Your task to perform on an android device: Open Chrome and go to settings Image 0: 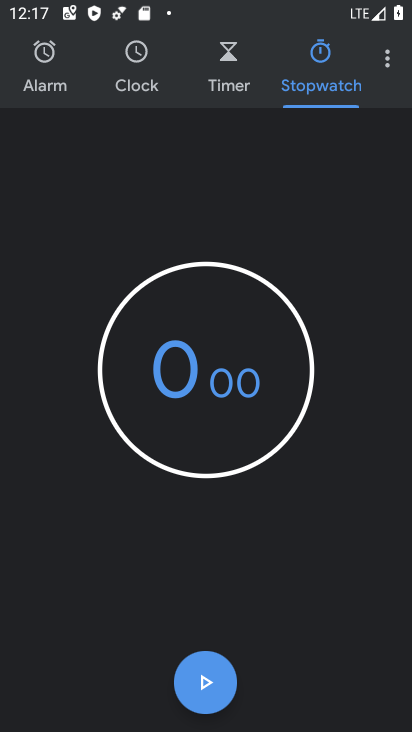
Step 0: press home button
Your task to perform on an android device: Open Chrome and go to settings Image 1: 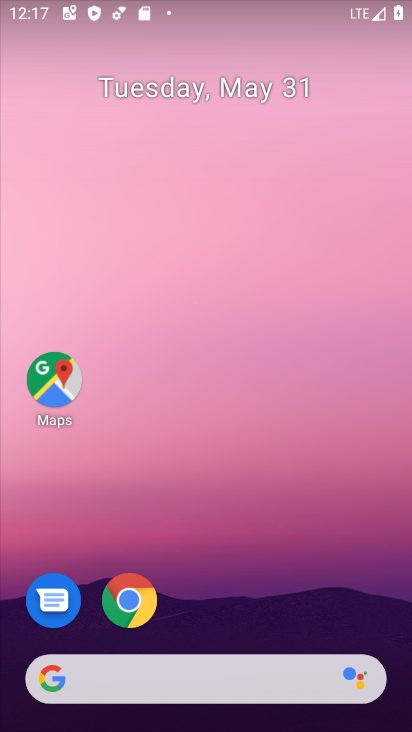
Step 1: click (128, 610)
Your task to perform on an android device: Open Chrome and go to settings Image 2: 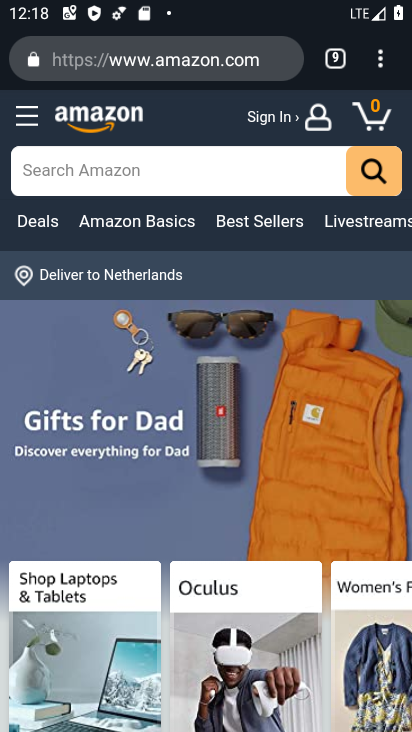
Step 2: click (382, 69)
Your task to perform on an android device: Open Chrome and go to settings Image 3: 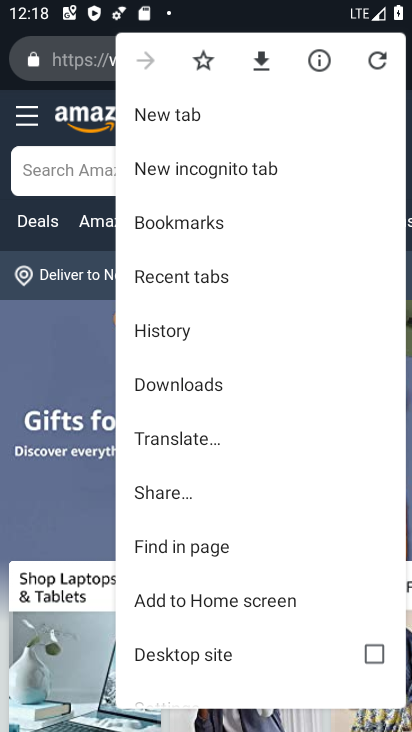
Step 3: drag from (194, 667) to (193, 203)
Your task to perform on an android device: Open Chrome and go to settings Image 4: 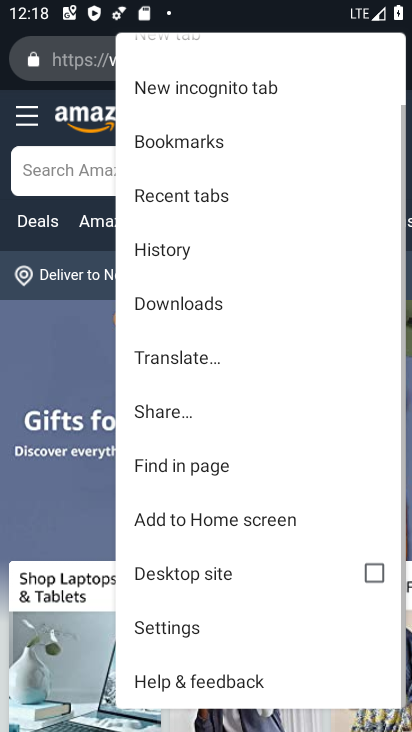
Step 4: click (181, 629)
Your task to perform on an android device: Open Chrome and go to settings Image 5: 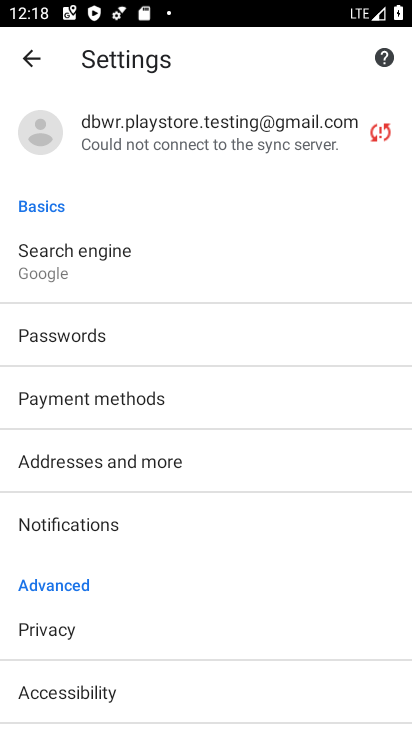
Step 5: task complete